Your task to perform on an android device: toggle translation in the chrome app Image 0: 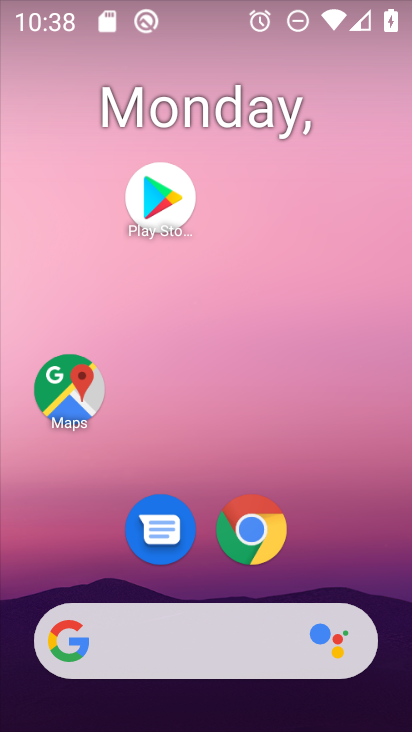
Step 0: click (251, 527)
Your task to perform on an android device: toggle translation in the chrome app Image 1: 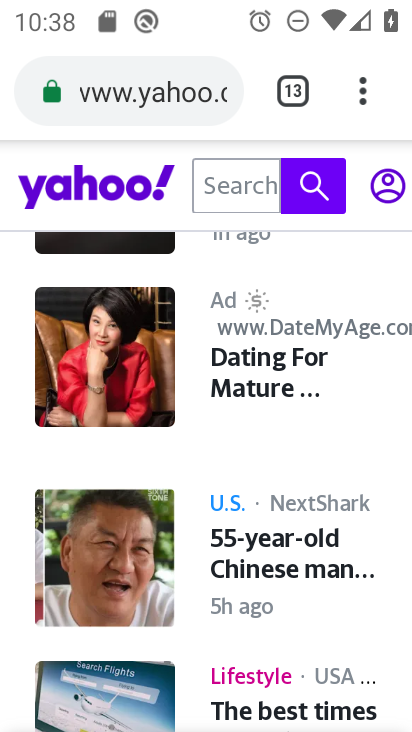
Step 1: click (356, 84)
Your task to perform on an android device: toggle translation in the chrome app Image 2: 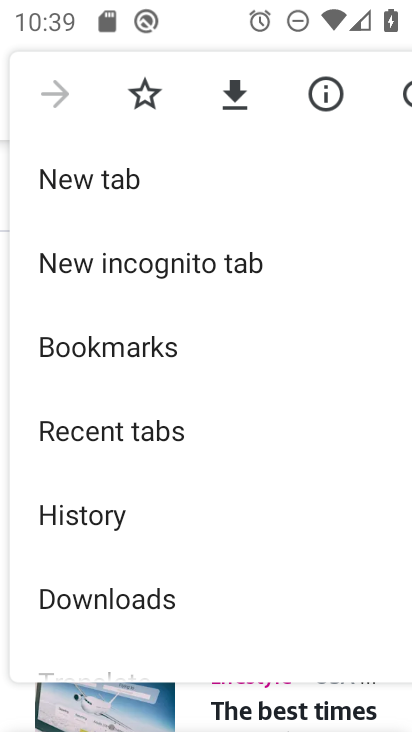
Step 2: drag from (233, 499) to (182, 166)
Your task to perform on an android device: toggle translation in the chrome app Image 3: 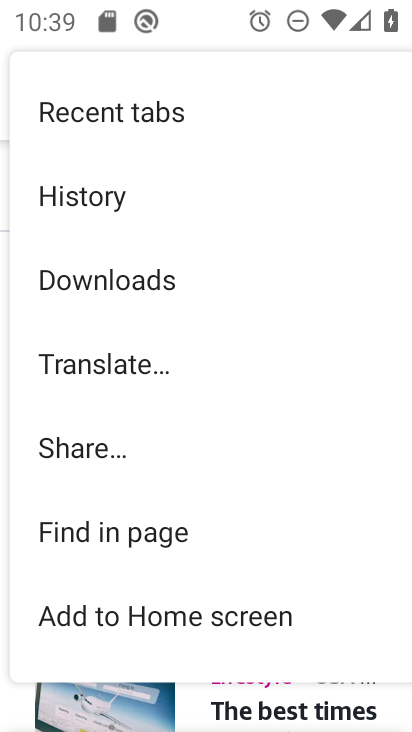
Step 3: drag from (216, 547) to (194, 152)
Your task to perform on an android device: toggle translation in the chrome app Image 4: 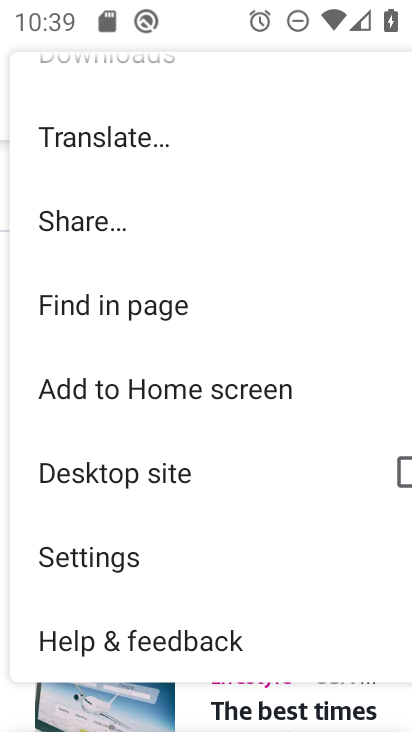
Step 4: click (94, 542)
Your task to perform on an android device: toggle translation in the chrome app Image 5: 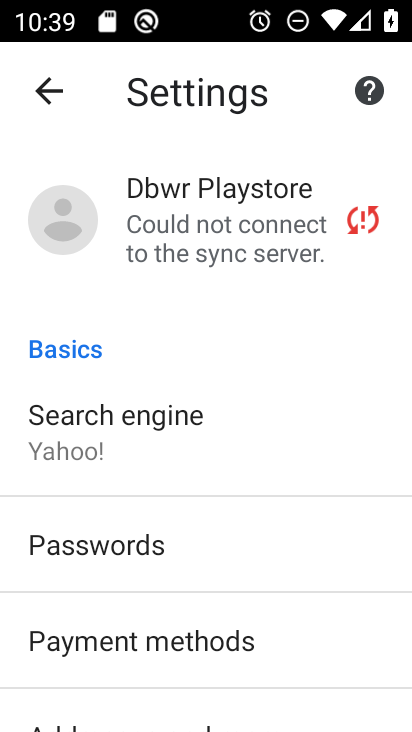
Step 5: drag from (242, 515) to (226, 248)
Your task to perform on an android device: toggle translation in the chrome app Image 6: 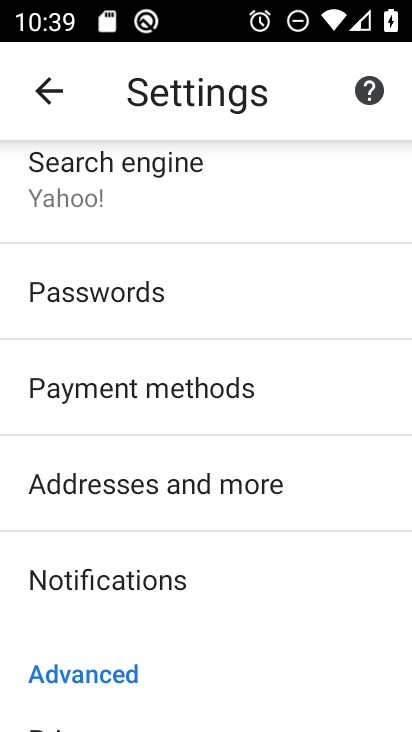
Step 6: drag from (241, 588) to (246, 176)
Your task to perform on an android device: toggle translation in the chrome app Image 7: 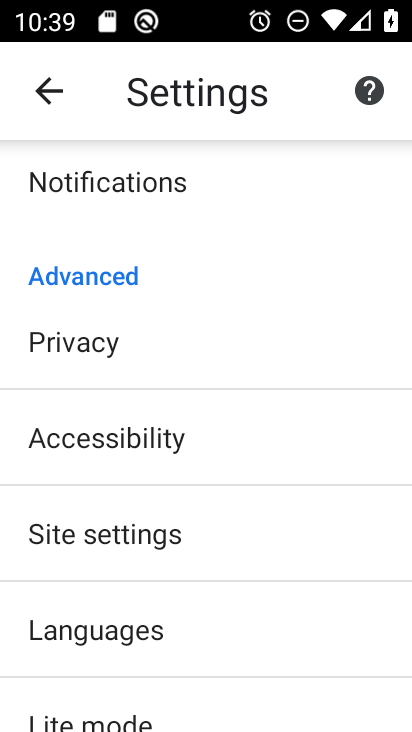
Step 7: click (111, 639)
Your task to perform on an android device: toggle translation in the chrome app Image 8: 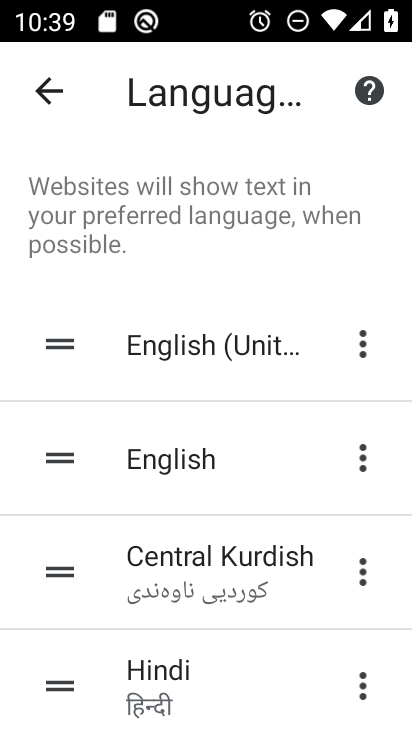
Step 8: drag from (270, 609) to (210, 321)
Your task to perform on an android device: toggle translation in the chrome app Image 9: 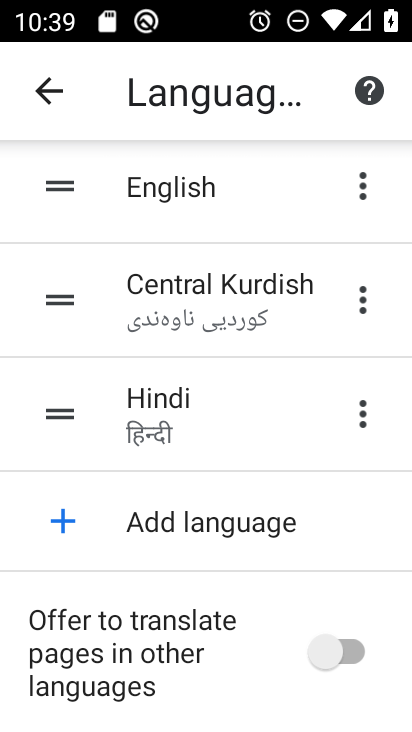
Step 9: click (339, 641)
Your task to perform on an android device: toggle translation in the chrome app Image 10: 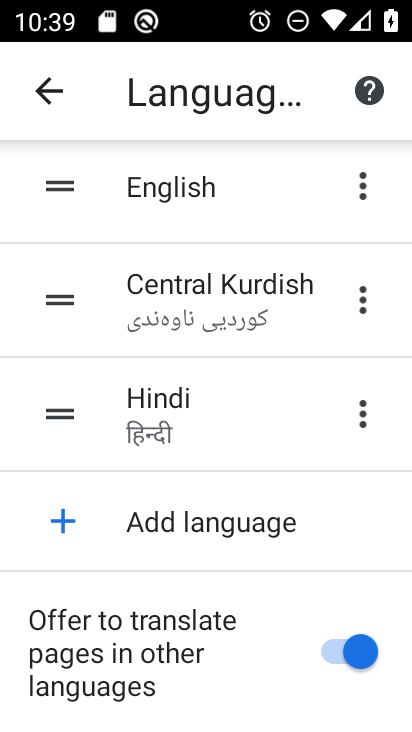
Step 10: task complete